Your task to perform on an android device: Open wifi settings Image 0: 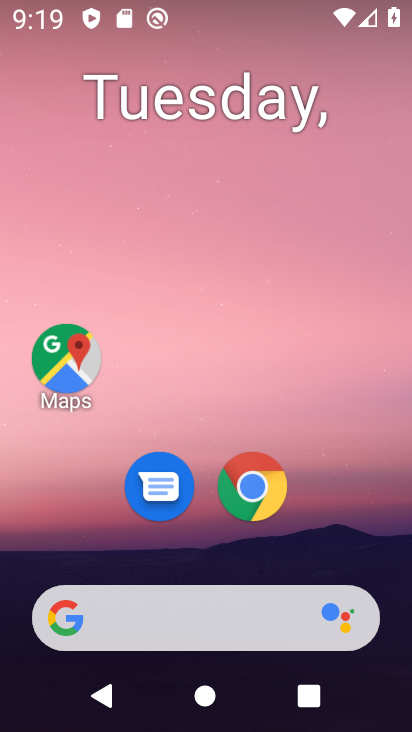
Step 0: press home button
Your task to perform on an android device: Open wifi settings Image 1: 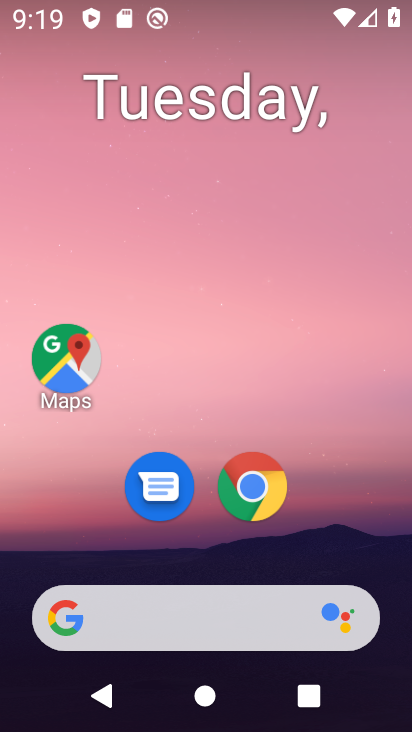
Step 1: drag from (344, 544) to (327, 195)
Your task to perform on an android device: Open wifi settings Image 2: 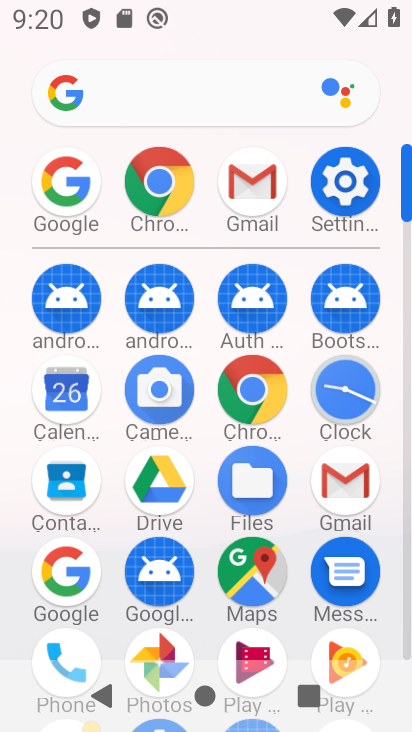
Step 2: click (364, 185)
Your task to perform on an android device: Open wifi settings Image 3: 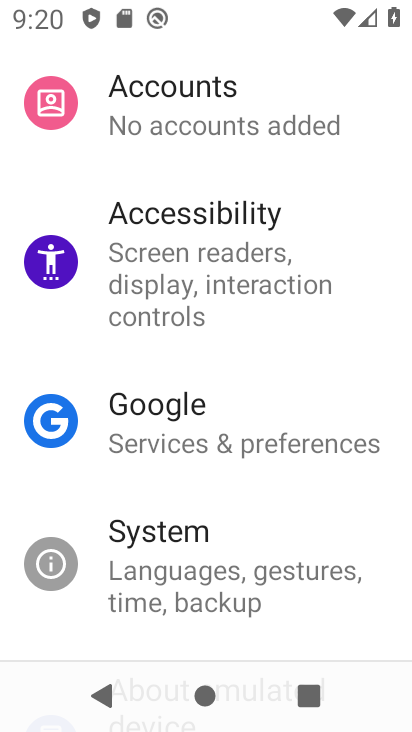
Step 3: click (374, 324)
Your task to perform on an android device: Open wifi settings Image 4: 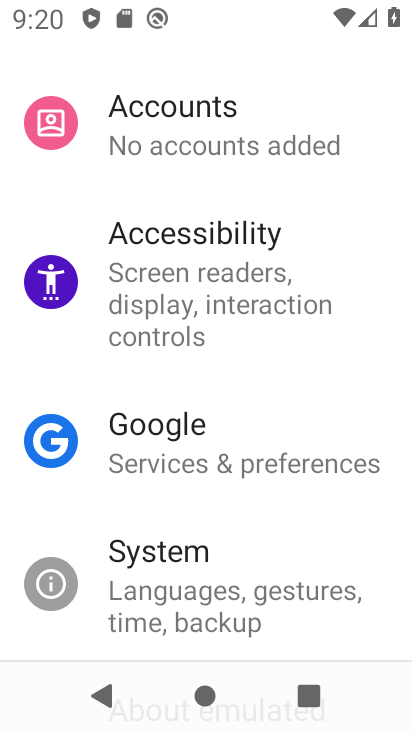
Step 4: drag from (355, 278) to (349, 333)
Your task to perform on an android device: Open wifi settings Image 5: 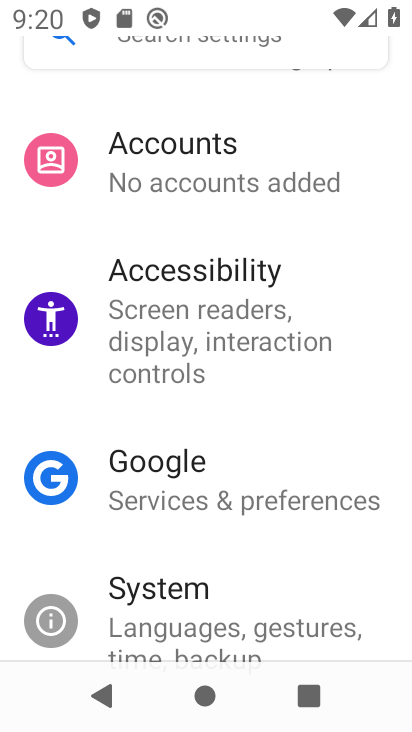
Step 5: drag from (365, 252) to (363, 290)
Your task to perform on an android device: Open wifi settings Image 6: 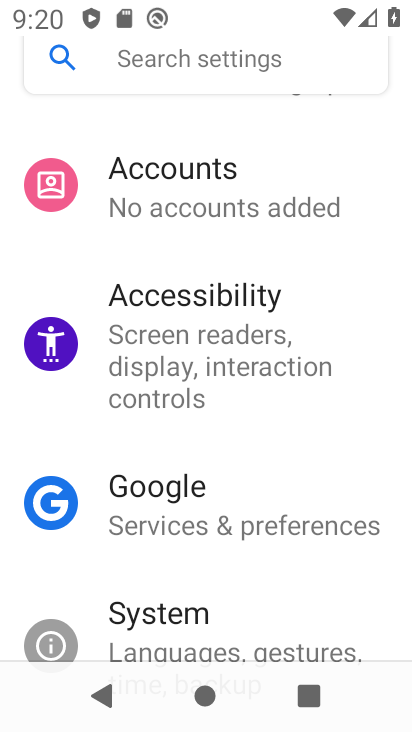
Step 6: click (362, 260)
Your task to perform on an android device: Open wifi settings Image 7: 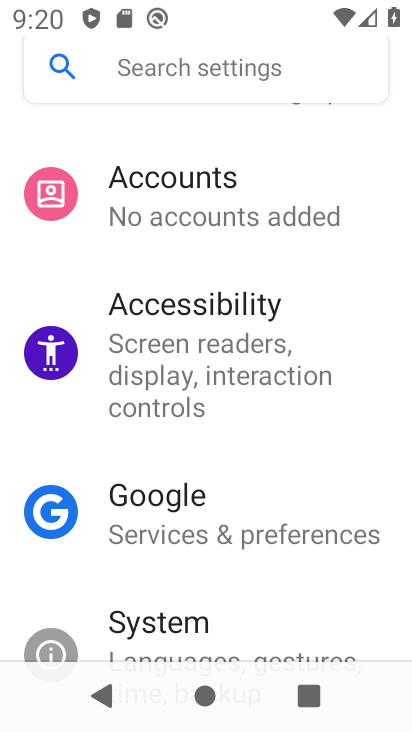
Step 7: click (364, 266)
Your task to perform on an android device: Open wifi settings Image 8: 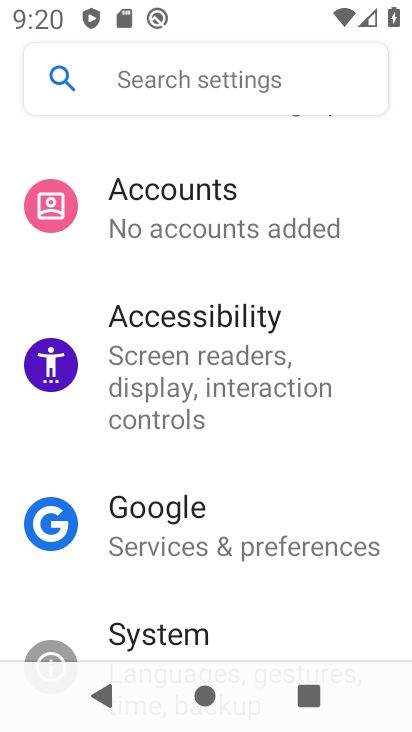
Step 8: drag from (356, 268) to (351, 308)
Your task to perform on an android device: Open wifi settings Image 9: 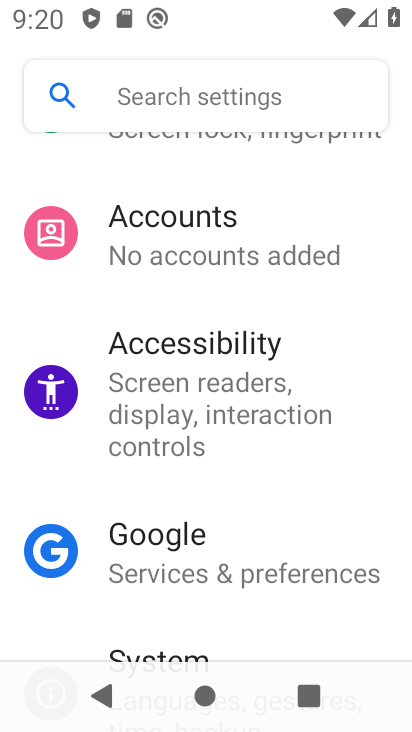
Step 9: drag from (346, 281) to (339, 346)
Your task to perform on an android device: Open wifi settings Image 10: 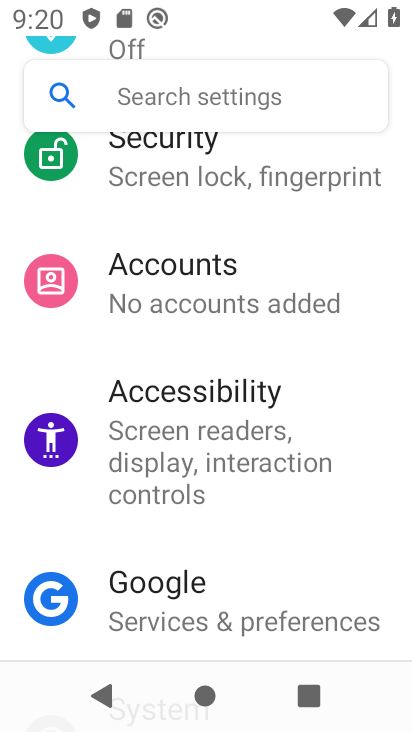
Step 10: drag from (345, 304) to (336, 354)
Your task to perform on an android device: Open wifi settings Image 11: 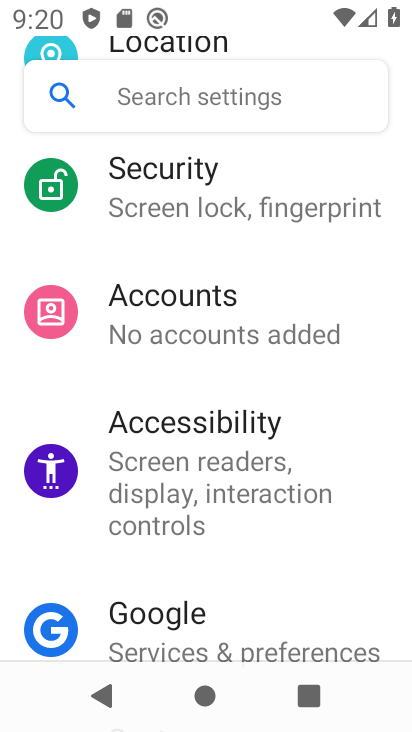
Step 11: drag from (336, 308) to (328, 357)
Your task to perform on an android device: Open wifi settings Image 12: 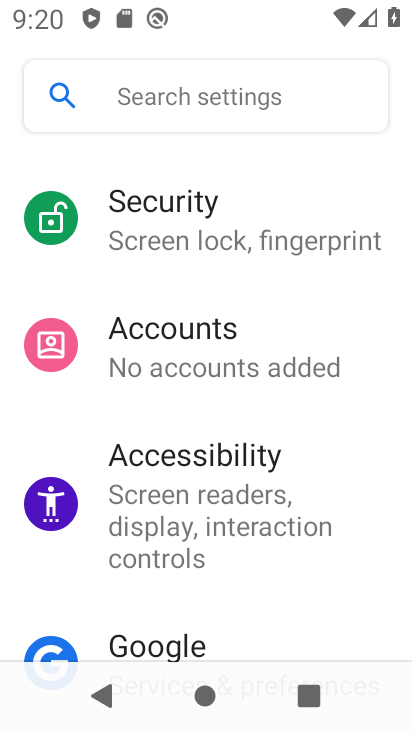
Step 12: drag from (327, 316) to (324, 362)
Your task to perform on an android device: Open wifi settings Image 13: 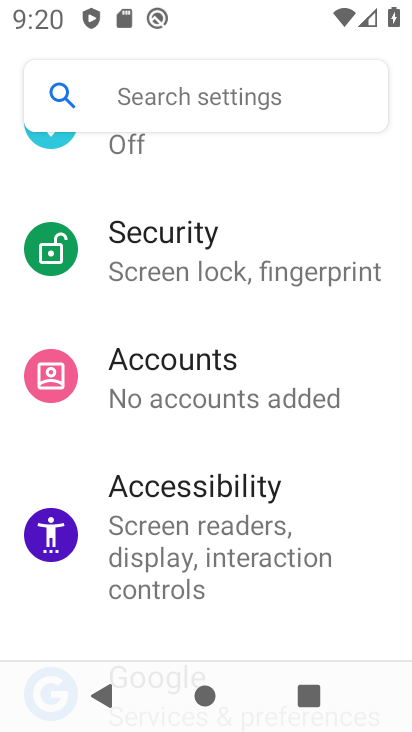
Step 13: drag from (334, 318) to (331, 387)
Your task to perform on an android device: Open wifi settings Image 14: 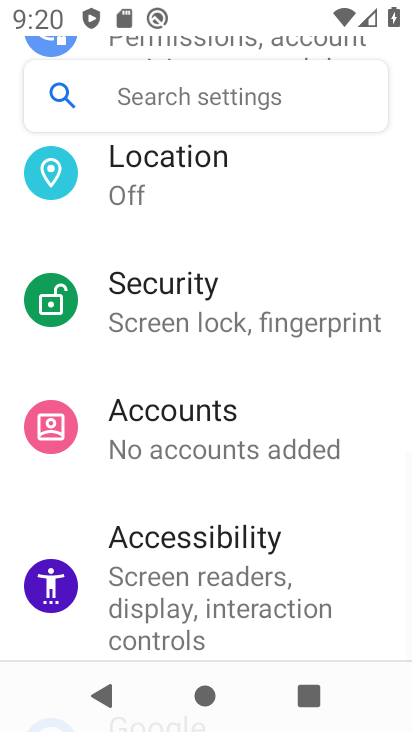
Step 14: drag from (348, 298) to (346, 353)
Your task to perform on an android device: Open wifi settings Image 15: 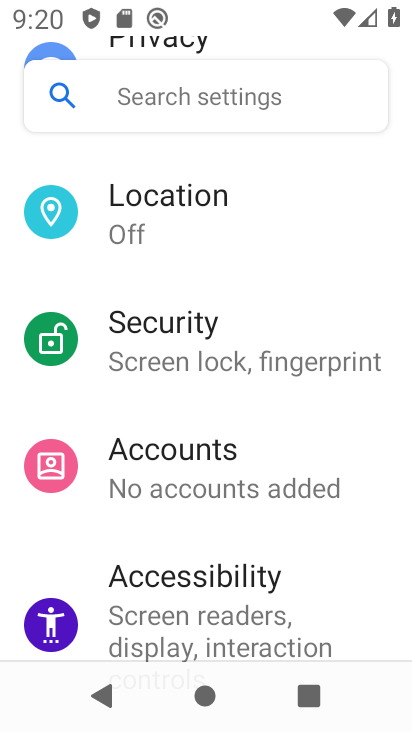
Step 15: drag from (349, 305) to (338, 374)
Your task to perform on an android device: Open wifi settings Image 16: 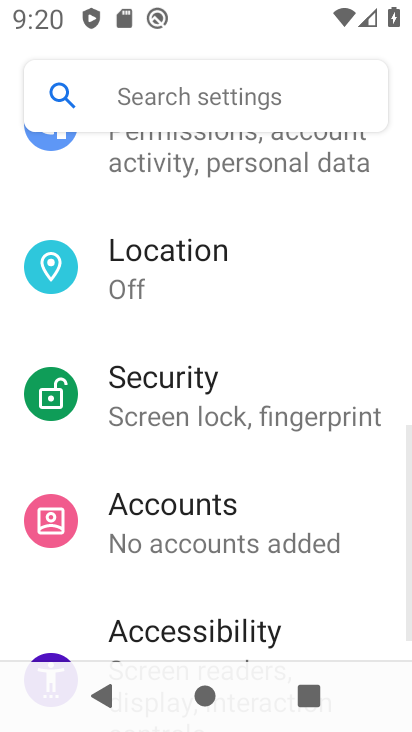
Step 16: drag from (338, 316) to (333, 378)
Your task to perform on an android device: Open wifi settings Image 17: 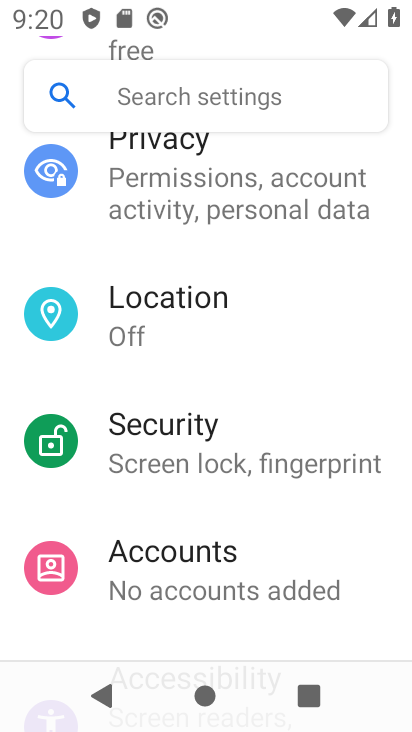
Step 17: click (334, 338)
Your task to perform on an android device: Open wifi settings Image 18: 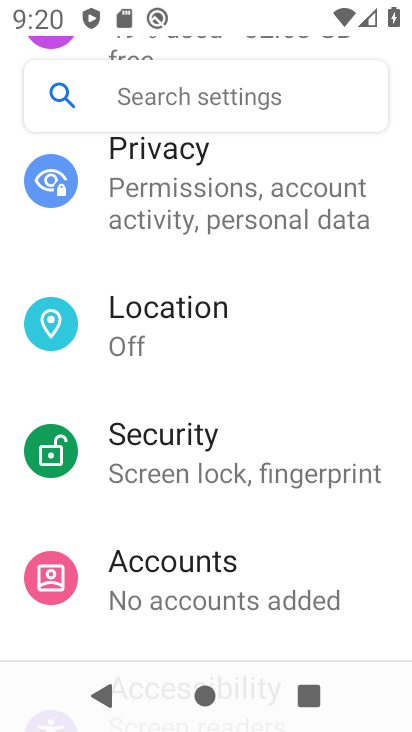
Step 18: drag from (329, 341) to (320, 389)
Your task to perform on an android device: Open wifi settings Image 19: 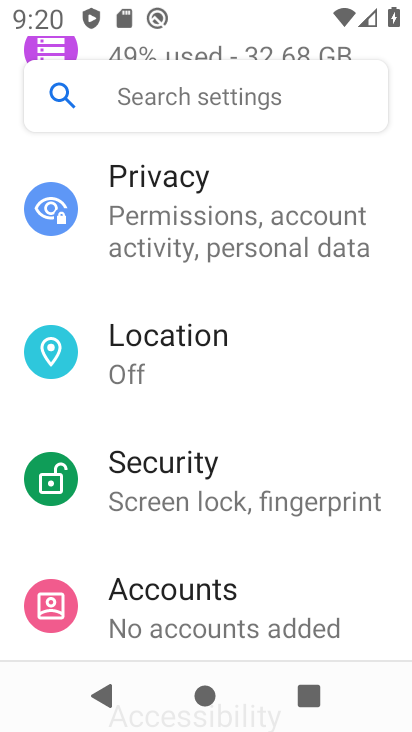
Step 19: drag from (325, 309) to (325, 385)
Your task to perform on an android device: Open wifi settings Image 20: 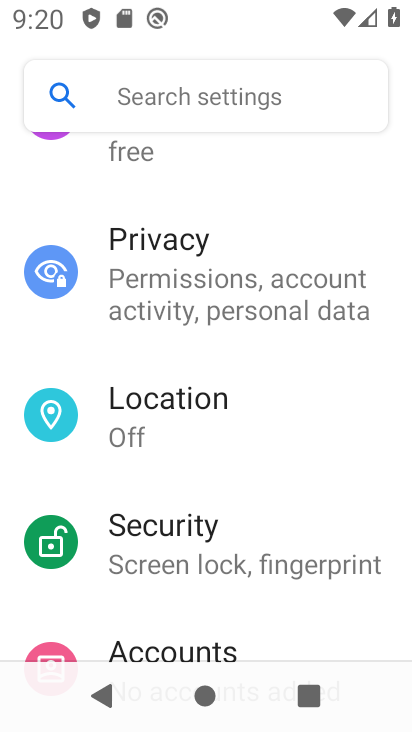
Step 20: drag from (380, 252) to (368, 354)
Your task to perform on an android device: Open wifi settings Image 21: 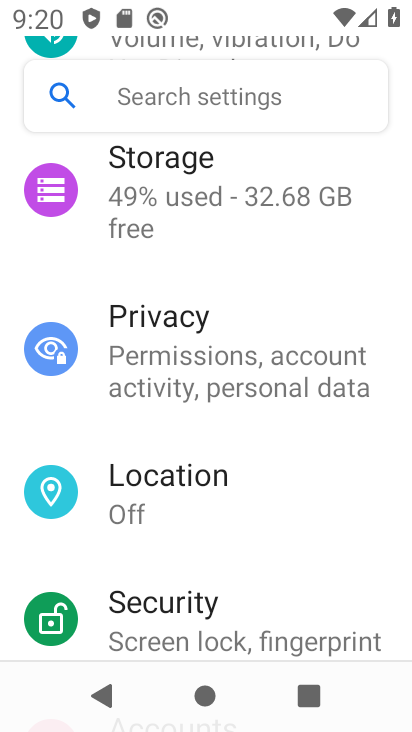
Step 21: drag from (359, 226) to (350, 314)
Your task to perform on an android device: Open wifi settings Image 22: 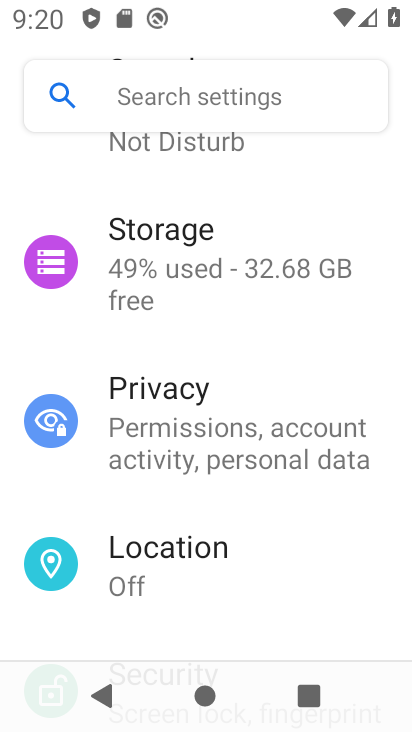
Step 22: drag from (365, 204) to (359, 304)
Your task to perform on an android device: Open wifi settings Image 23: 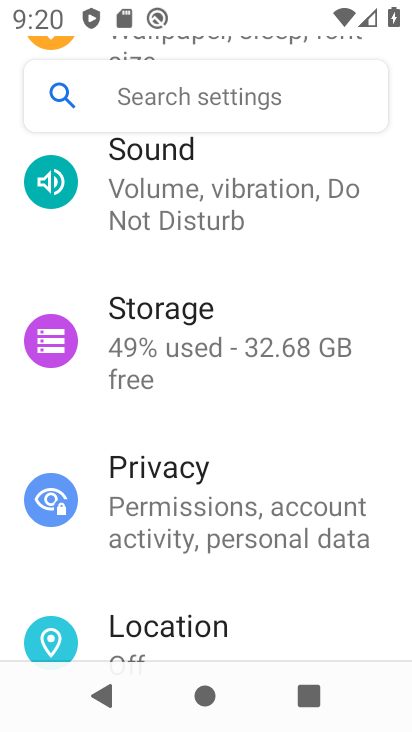
Step 23: drag from (355, 245) to (346, 348)
Your task to perform on an android device: Open wifi settings Image 24: 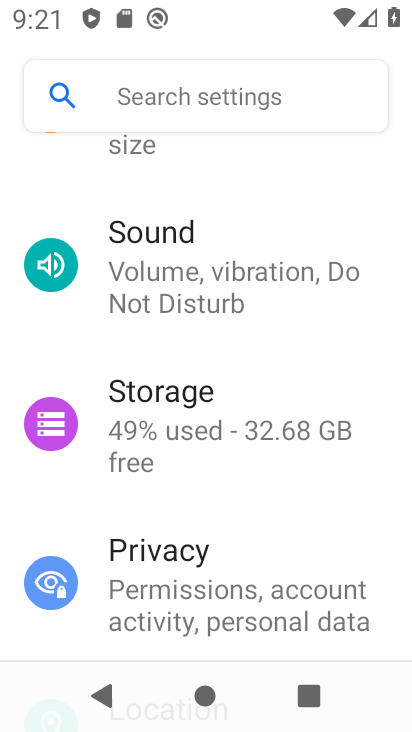
Step 24: drag from (358, 235) to (346, 337)
Your task to perform on an android device: Open wifi settings Image 25: 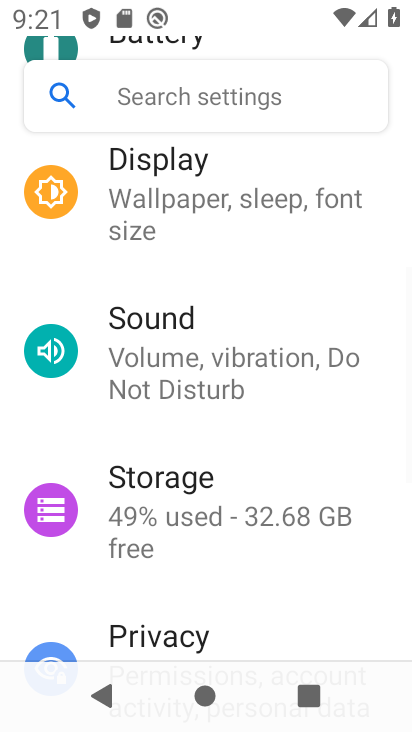
Step 25: drag from (345, 229) to (335, 313)
Your task to perform on an android device: Open wifi settings Image 26: 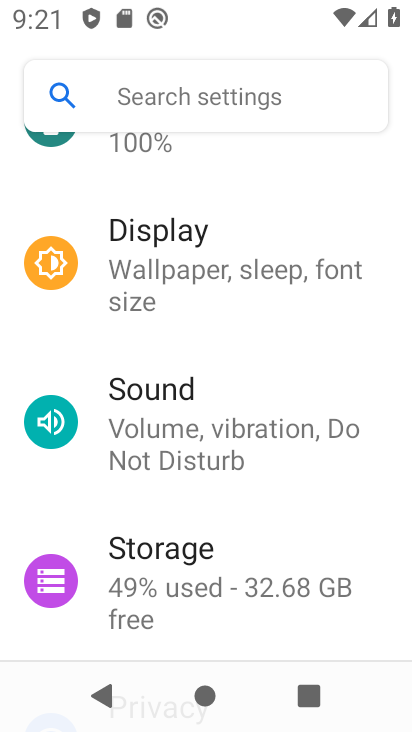
Step 26: drag from (347, 234) to (337, 317)
Your task to perform on an android device: Open wifi settings Image 27: 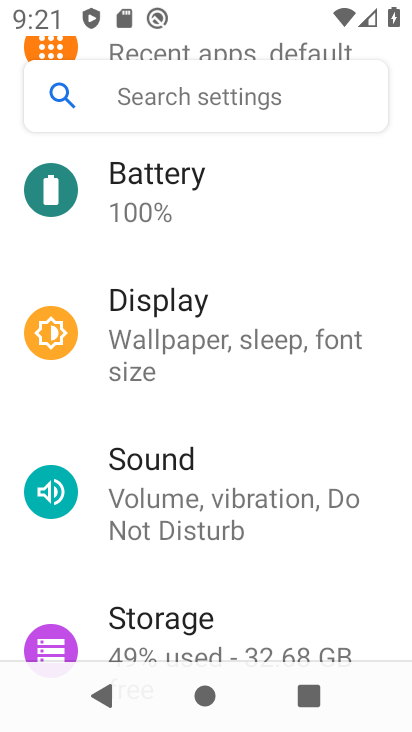
Step 27: click (335, 288)
Your task to perform on an android device: Open wifi settings Image 28: 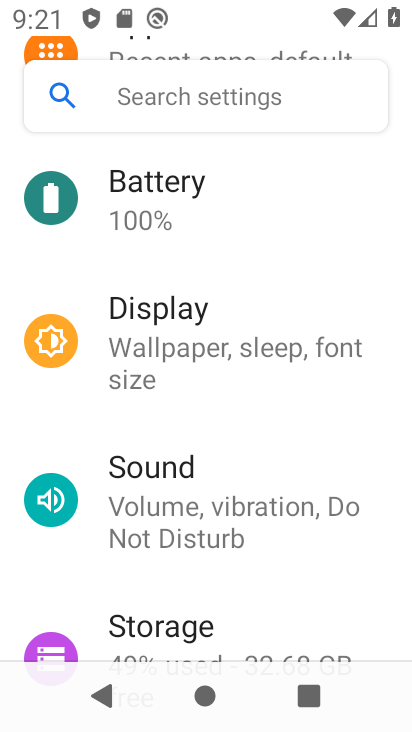
Step 28: drag from (338, 226) to (333, 325)
Your task to perform on an android device: Open wifi settings Image 29: 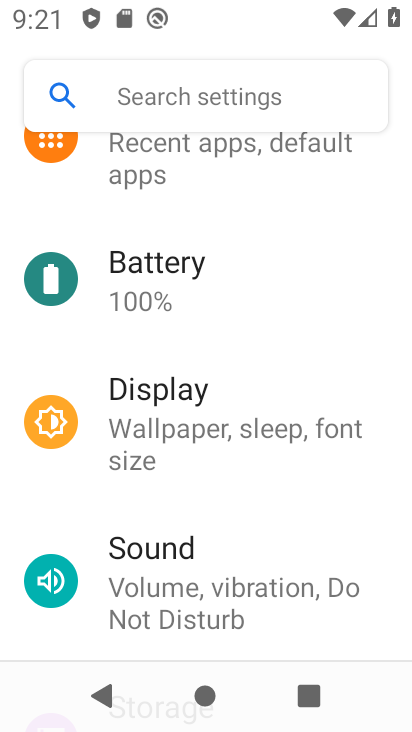
Step 29: drag from (333, 299) to (321, 357)
Your task to perform on an android device: Open wifi settings Image 30: 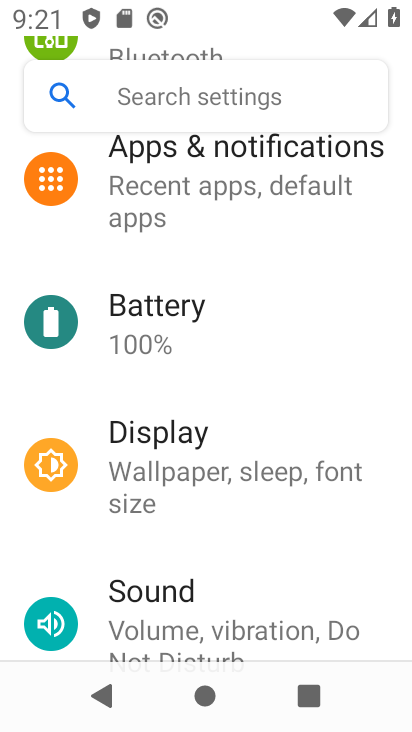
Step 30: drag from (318, 317) to (312, 356)
Your task to perform on an android device: Open wifi settings Image 31: 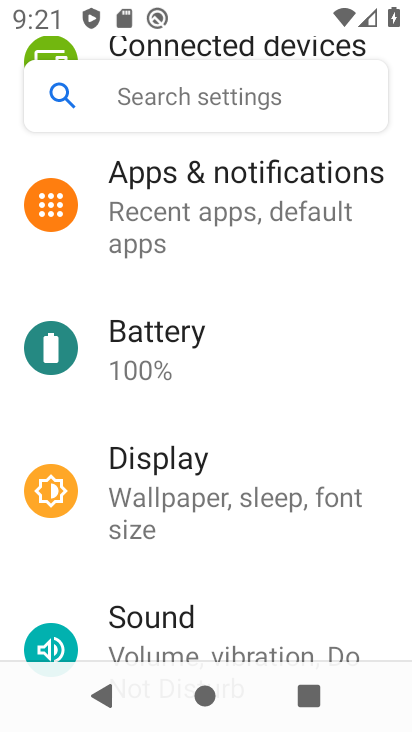
Step 31: drag from (364, 187) to (360, 571)
Your task to perform on an android device: Open wifi settings Image 32: 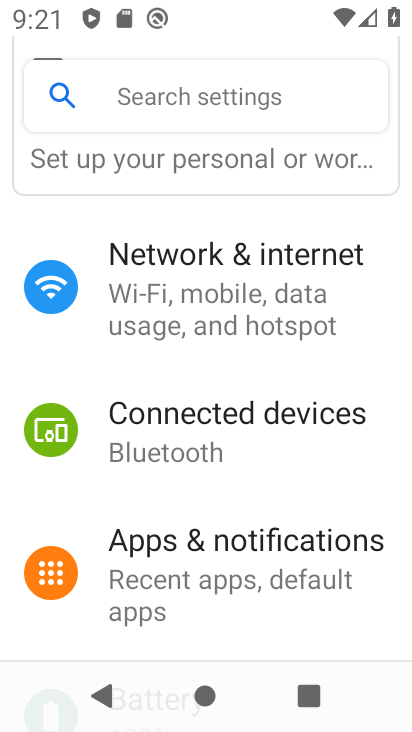
Step 32: click (305, 300)
Your task to perform on an android device: Open wifi settings Image 33: 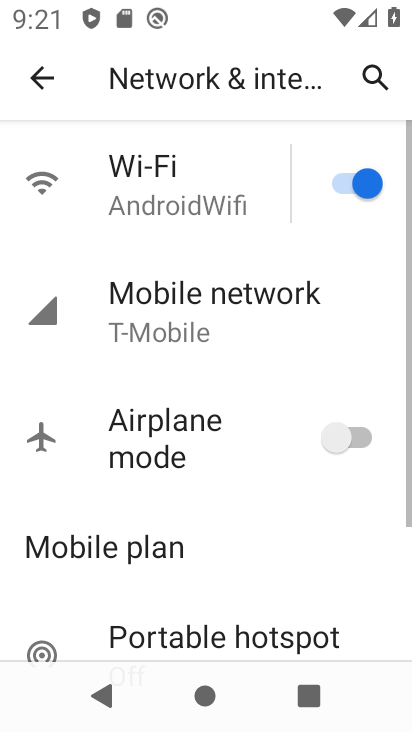
Step 33: click (175, 186)
Your task to perform on an android device: Open wifi settings Image 34: 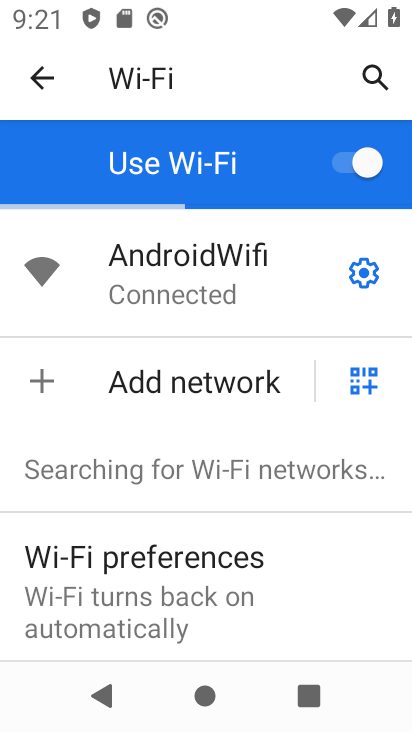
Step 34: task complete